Your task to perform on an android device: Open Reddit.com Image 0: 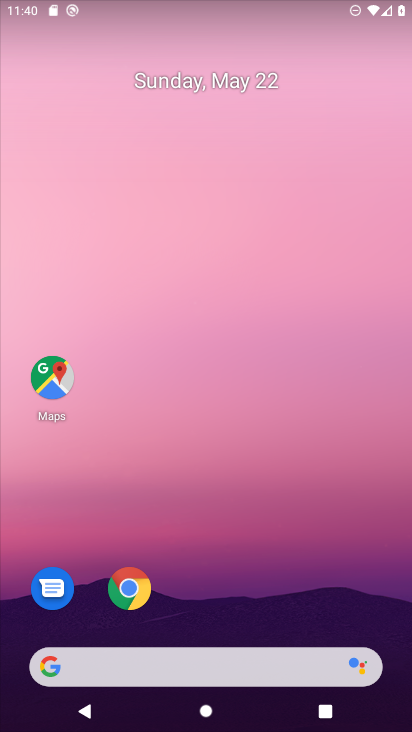
Step 0: drag from (208, 644) to (267, 257)
Your task to perform on an android device: Open Reddit.com Image 1: 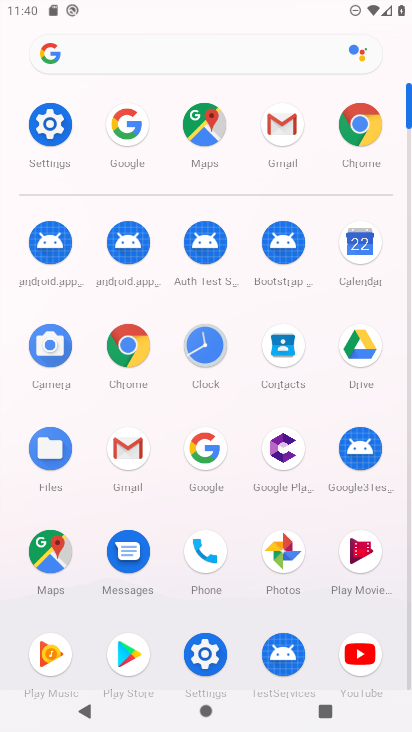
Step 1: click (217, 447)
Your task to perform on an android device: Open Reddit.com Image 2: 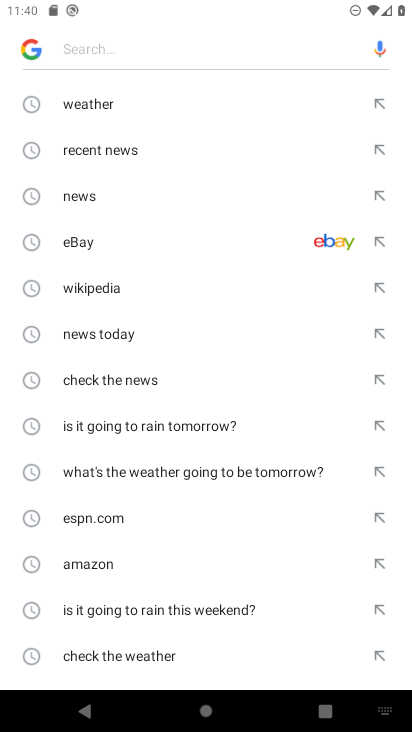
Step 2: click (92, 46)
Your task to perform on an android device: Open Reddit.com Image 3: 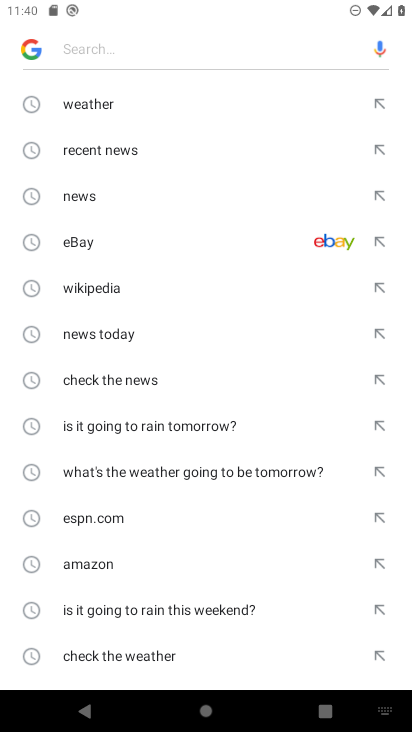
Step 3: drag from (130, 445) to (163, 415)
Your task to perform on an android device: Open Reddit.com Image 4: 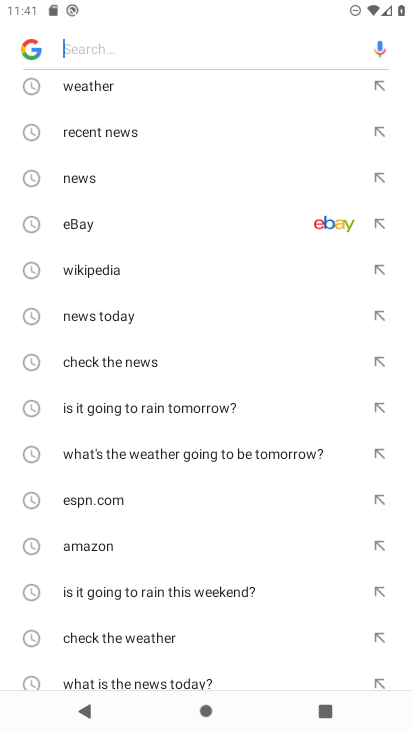
Step 4: drag from (148, 654) to (169, 269)
Your task to perform on an android device: Open Reddit.com Image 5: 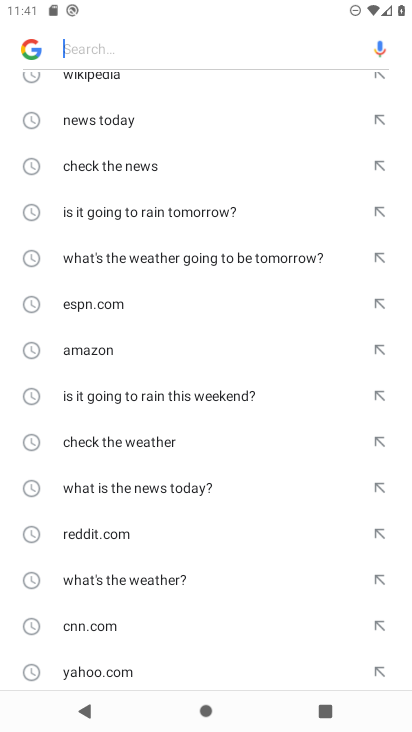
Step 5: click (111, 526)
Your task to perform on an android device: Open Reddit.com Image 6: 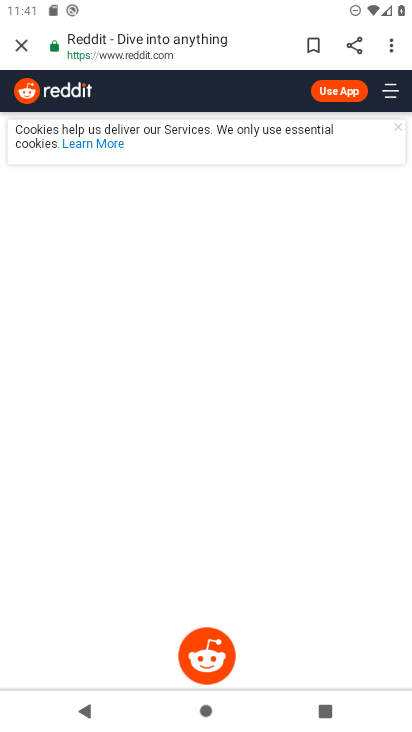
Step 6: task complete